Your task to perform on an android device: Open maps Image 0: 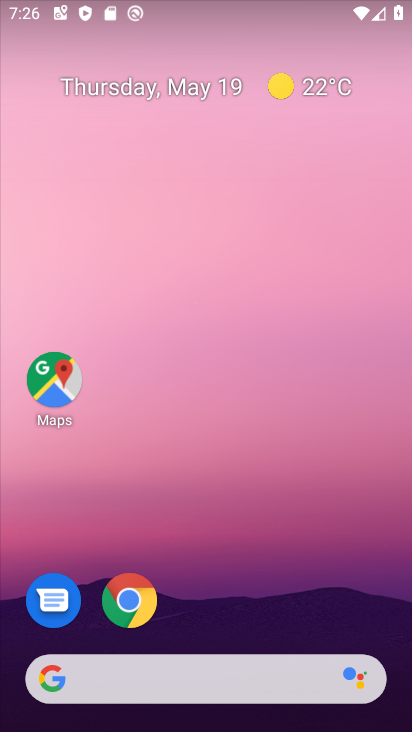
Step 0: drag from (286, 586) to (284, 281)
Your task to perform on an android device: Open maps Image 1: 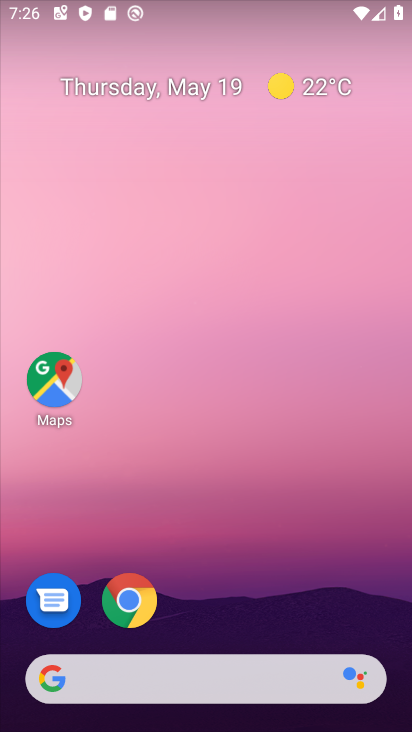
Step 1: click (22, 352)
Your task to perform on an android device: Open maps Image 2: 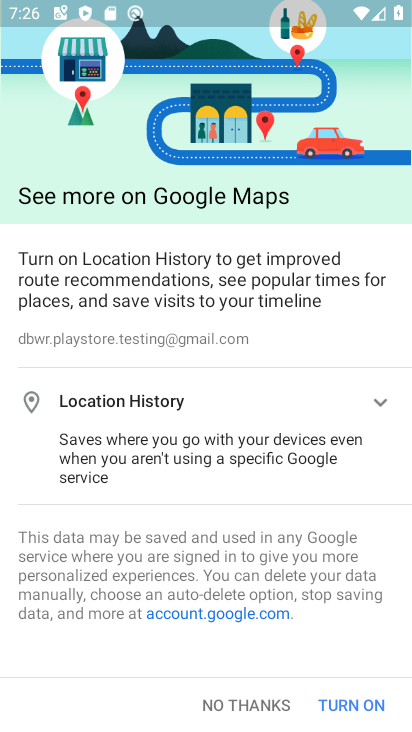
Step 2: click (226, 707)
Your task to perform on an android device: Open maps Image 3: 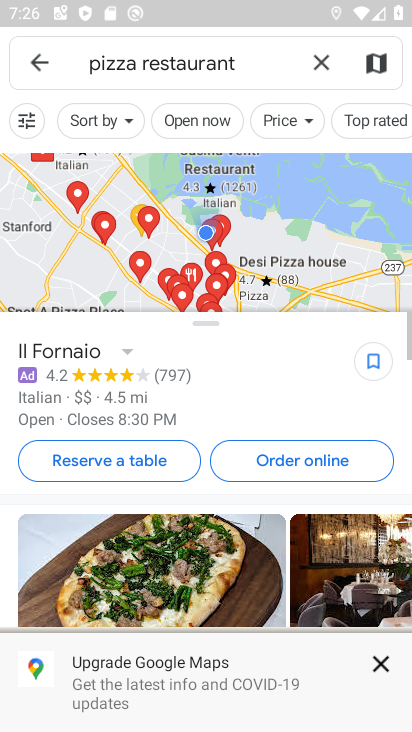
Step 3: drag from (228, 547) to (280, 213)
Your task to perform on an android device: Open maps Image 4: 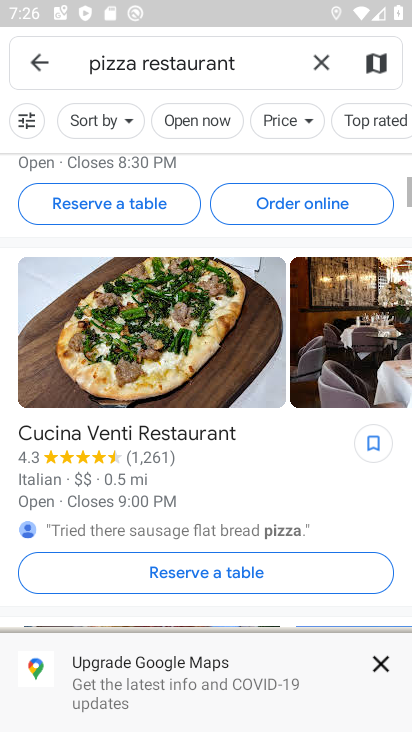
Step 4: click (387, 667)
Your task to perform on an android device: Open maps Image 5: 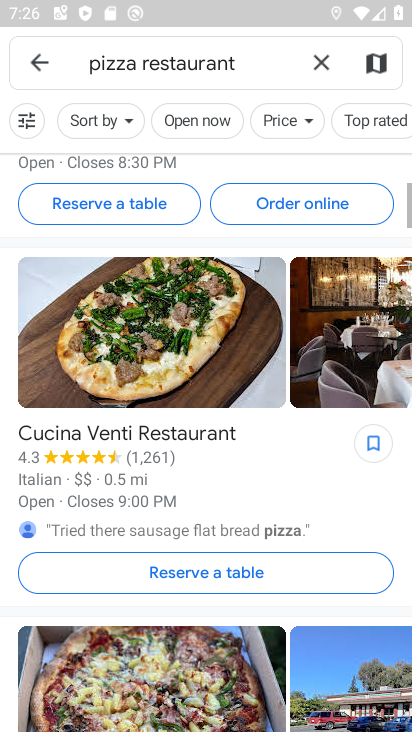
Step 5: task complete